Your task to perform on an android device: Go to calendar. Show me events next week Image 0: 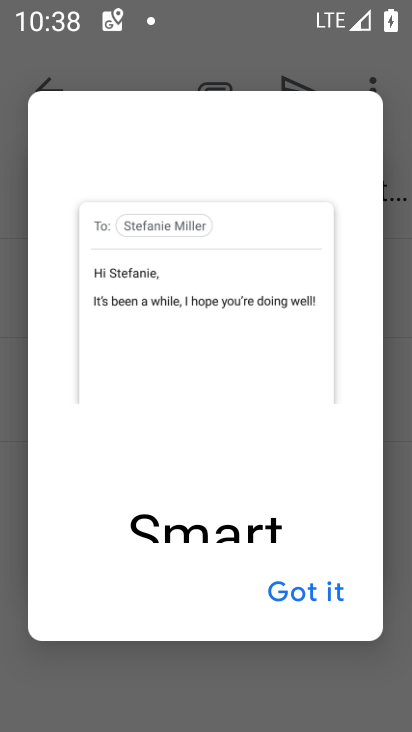
Step 0: press home button
Your task to perform on an android device: Go to calendar. Show me events next week Image 1: 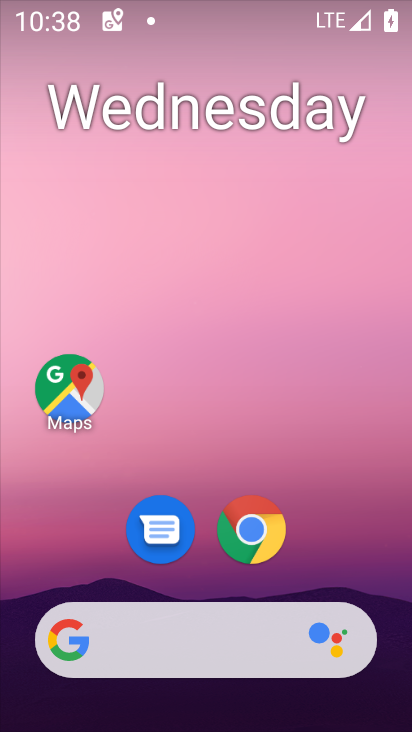
Step 1: drag from (391, 625) to (334, 90)
Your task to perform on an android device: Go to calendar. Show me events next week Image 2: 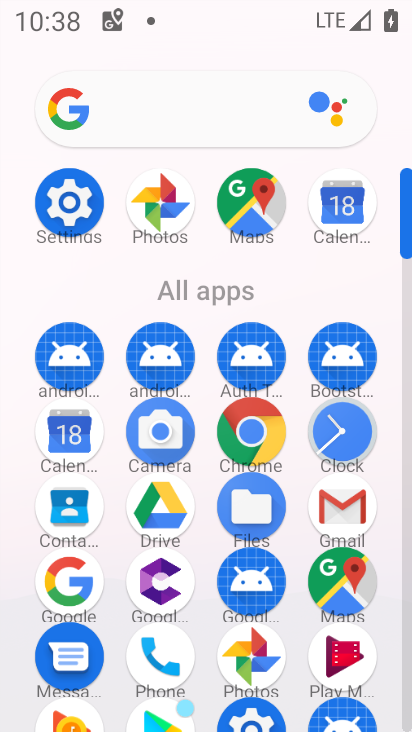
Step 2: click (404, 682)
Your task to perform on an android device: Go to calendar. Show me events next week Image 3: 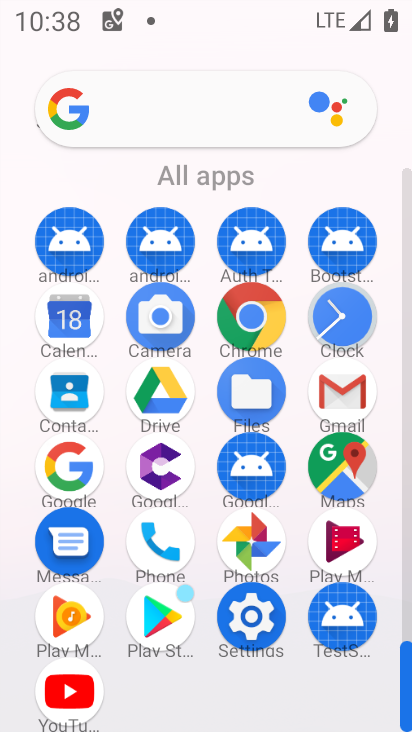
Step 3: click (67, 319)
Your task to perform on an android device: Go to calendar. Show me events next week Image 4: 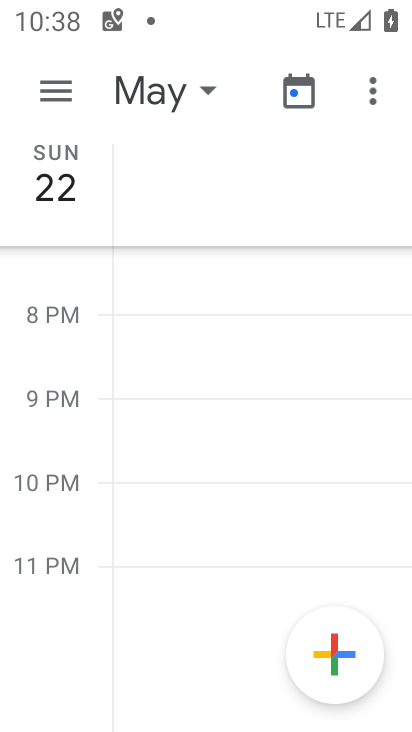
Step 4: click (52, 85)
Your task to perform on an android device: Go to calendar. Show me events next week Image 5: 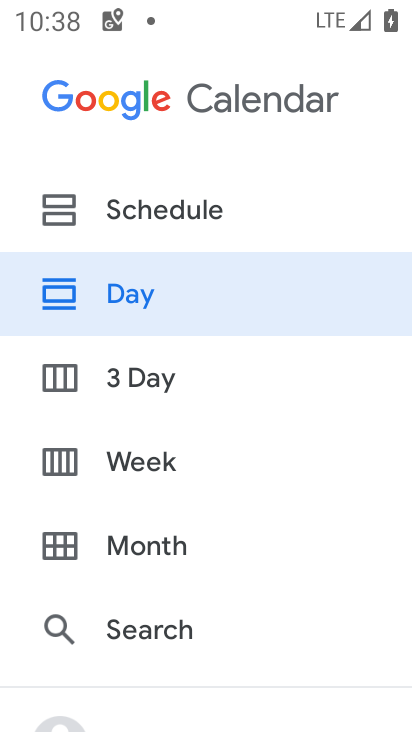
Step 5: click (124, 451)
Your task to perform on an android device: Go to calendar. Show me events next week Image 6: 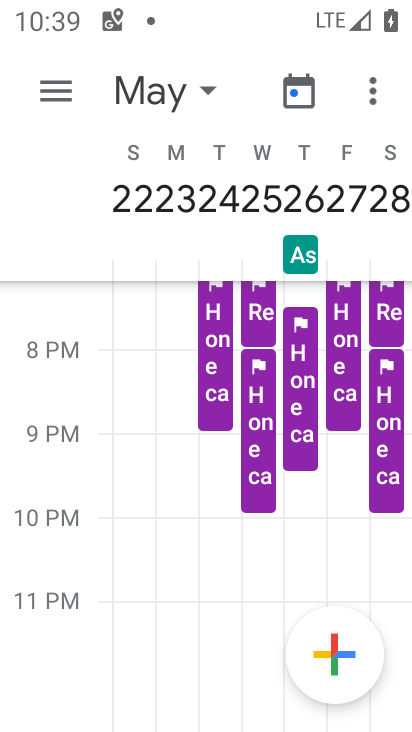
Step 6: task complete